Your task to perform on an android device: turn off javascript in the chrome app Image 0: 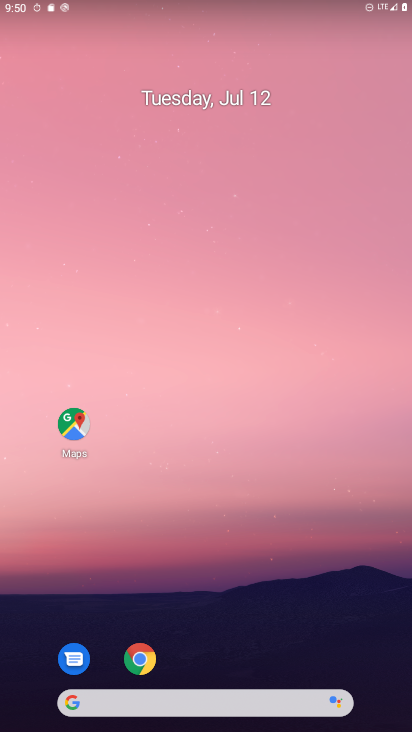
Step 0: drag from (381, 680) to (292, 117)
Your task to perform on an android device: turn off javascript in the chrome app Image 1: 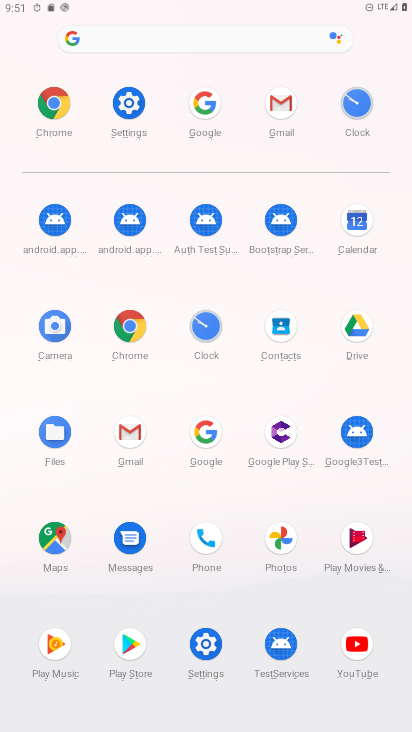
Step 1: click (50, 110)
Your task to perform on an android device: turn off javascript in the chrome app Image 2: 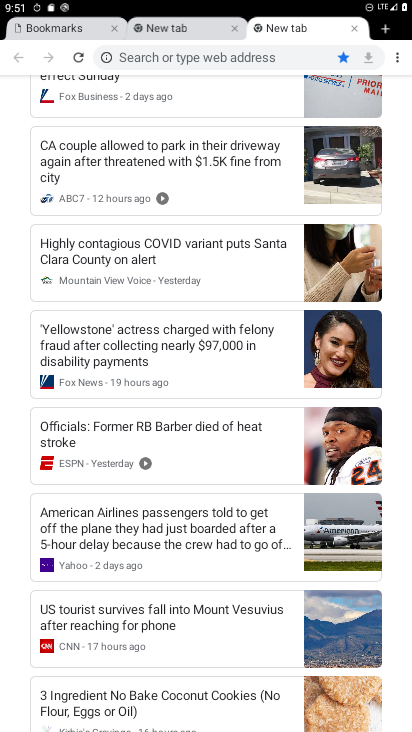
Step 2: click (396, 52)
Your task to perform on an android device: turn off javascript in the chrome app Image 3: 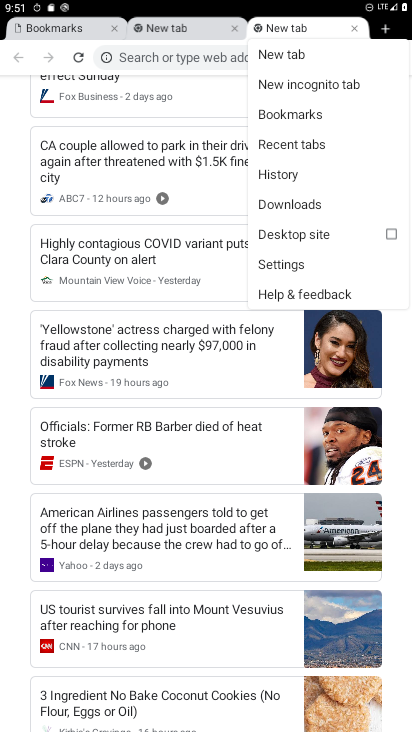
Step 3: click (298, 267)
Your task to perform on an android device: turn off javascript in the chrome app Image 4: 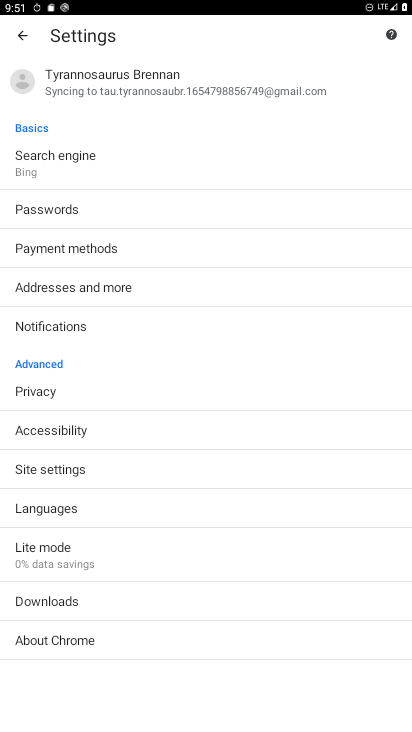
Step 4: click (109, 477)
Your task to perform on an android device: turn off javascript in the chrome app Image 5: 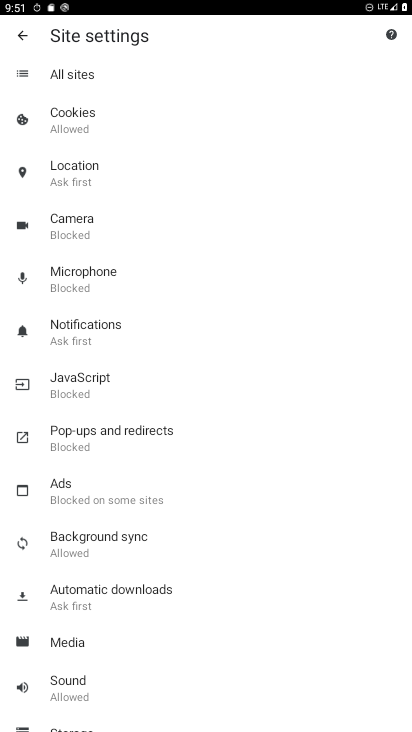
Step 5: click (85, 370)
Your task to perform on an android device: turn off javascript in the chrome app Image 6: 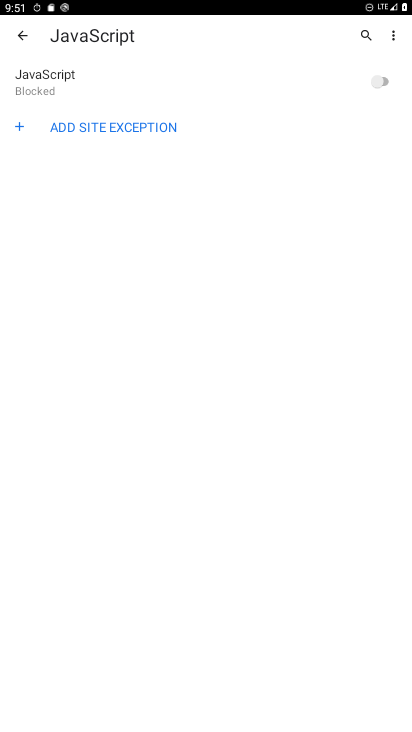
Step 6: task complete